Your task to perform on an android device: turn off picture-in-picture Image 0: 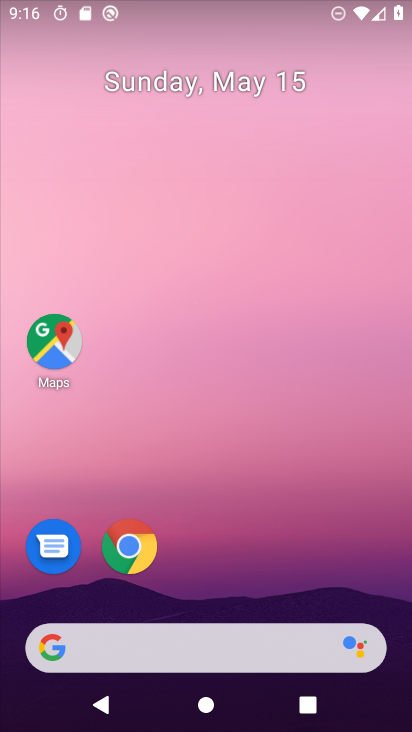
Step 0: click (134, 543)
Your task to perform on an android device: turn off picture-in-picture Image 1: 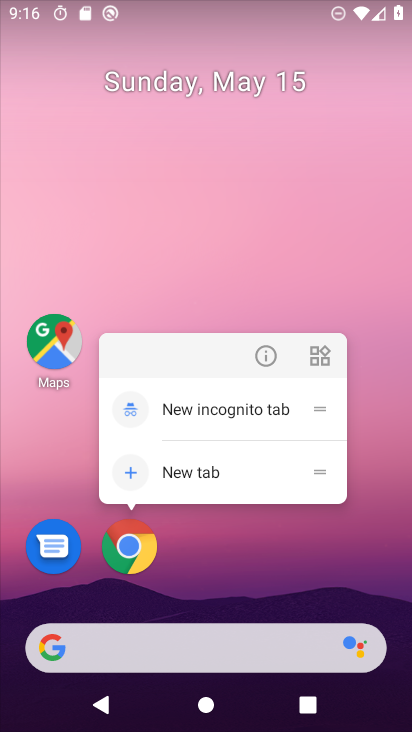
Step 1: click (267, 351)
Your task to perform on an android device: turn off picture-in-picture Image 2: 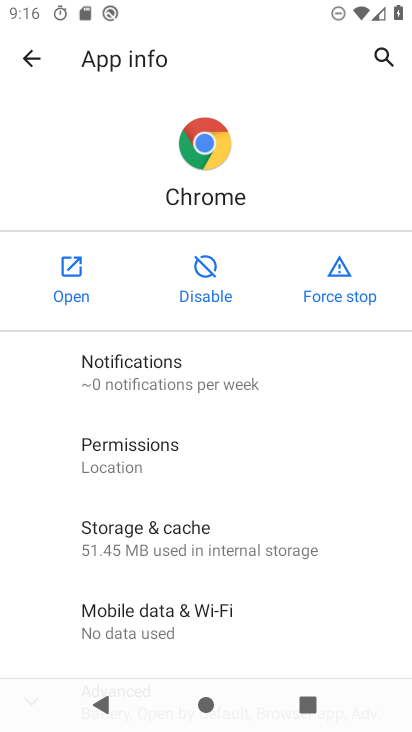
Step 2: drag from (176, 550) to (206, 201)
Your task to perform on an android device: turn off picture-in-picture Image 3: 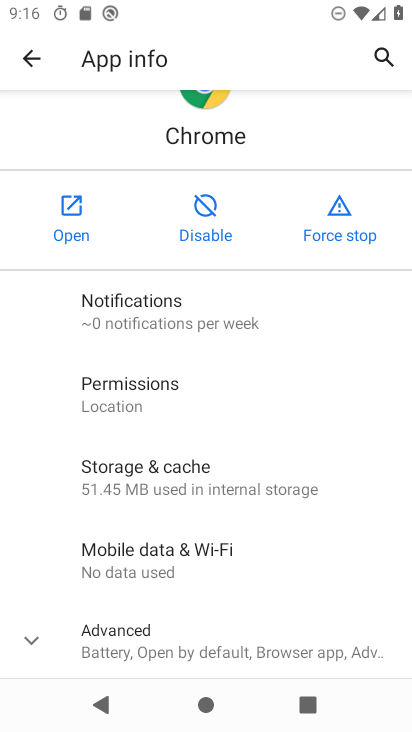
Step 3: click (26, 637)
Your task to perform on an android device: turn off picture-in-picture Image 4: 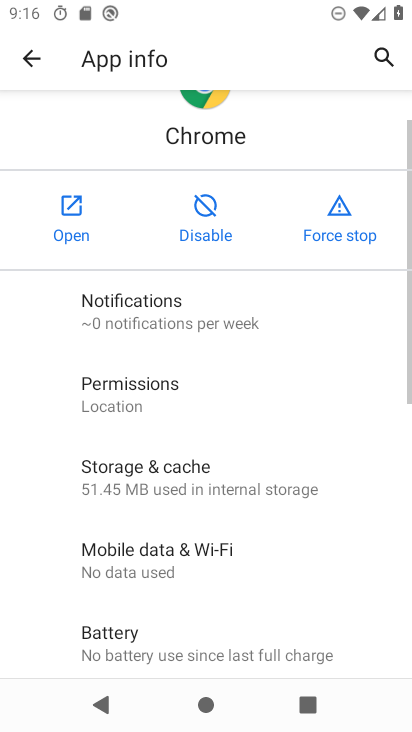
Step 4: drag from (238, 566) to (223, 138)
Your task to perform on an android device: turn off picture-in-picture Image 5: 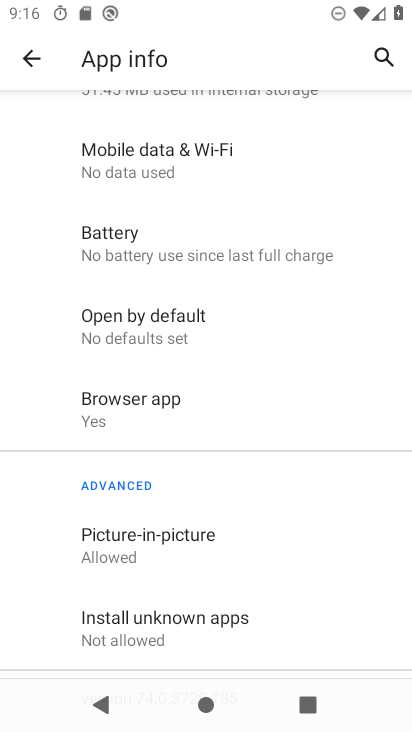
Step 5: click (189, 548)
Your task to perform on an android device: turn off picture-in-picture Image 6: 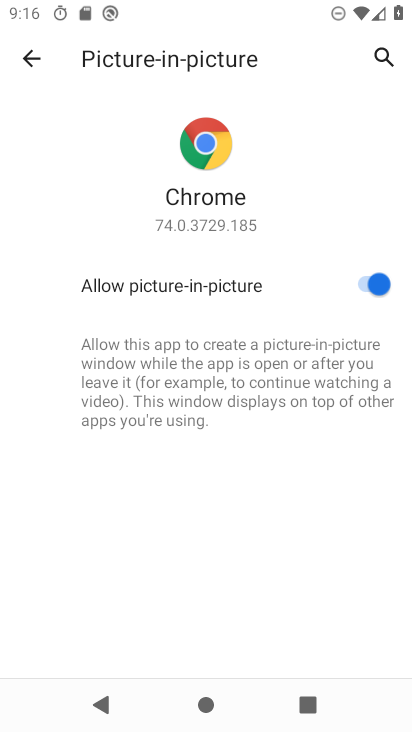
Step 6: click (371, 279)
Your task to perform on an android device: turn off picture-in-picture Image 7: 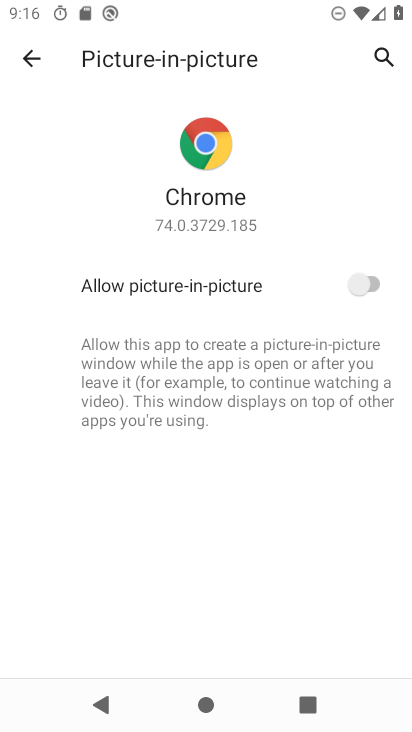
Step 7: task complete